Your task to perform on an android device: turn off translation in the chrome app Image 0: 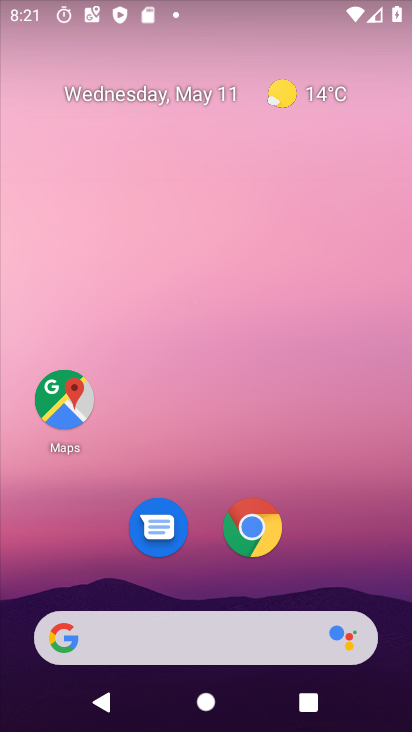
Step 0: click (249, 528)
Your task to perform on an android device: turn off translation in the chrome app Image 1: 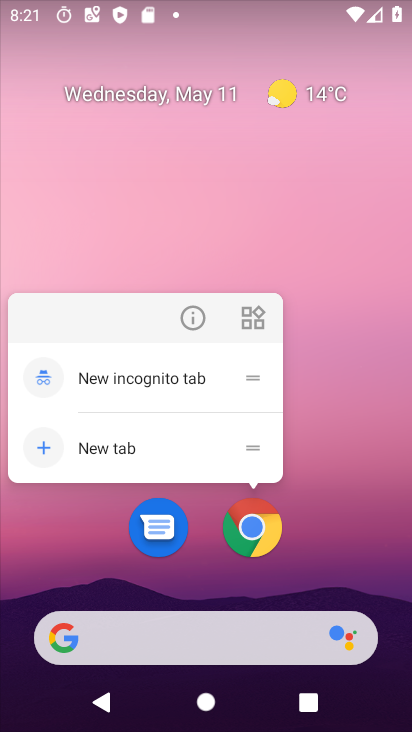
Step 1: click (255, 526)
Your task to perform on an android device: turn off translation in the chrome app Image 2: 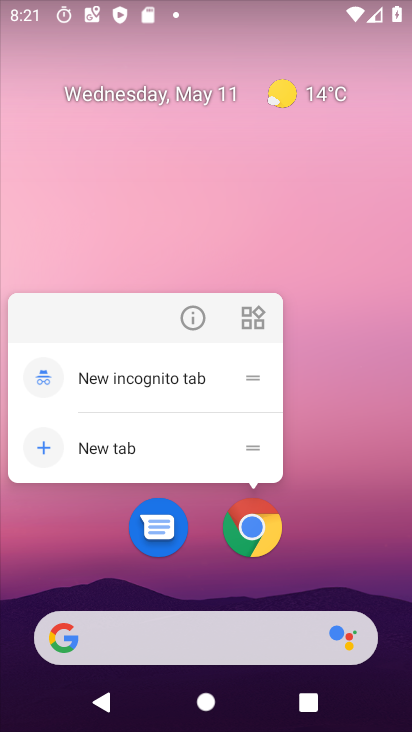
Step 2: click (258, 539)
Your task to perform on an android device: turn off translation in the chrome app Image 3: 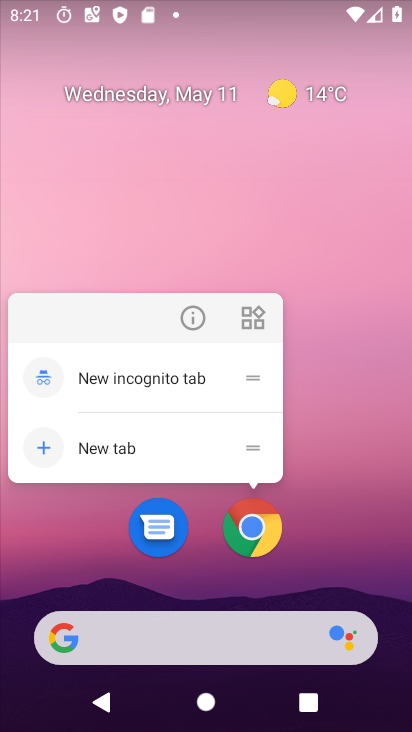
Step 3: click (258, 539)
Your task to perform on an android device: turn off translation in the chrome app Image 4: 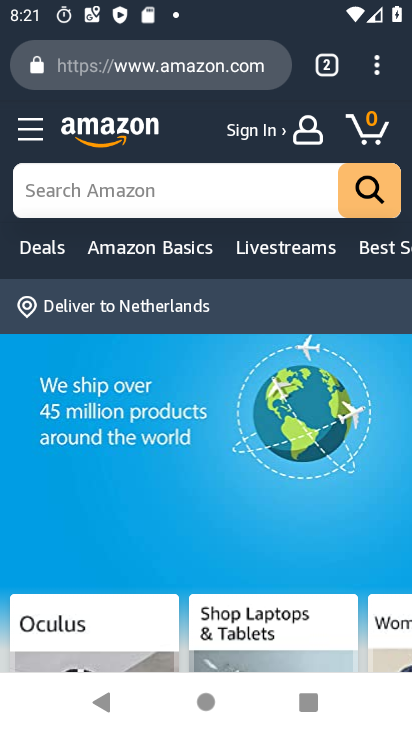
Step 4: click (384, 59)
Your task to perform on an android device: turn off translation in the chrome app Image 5: 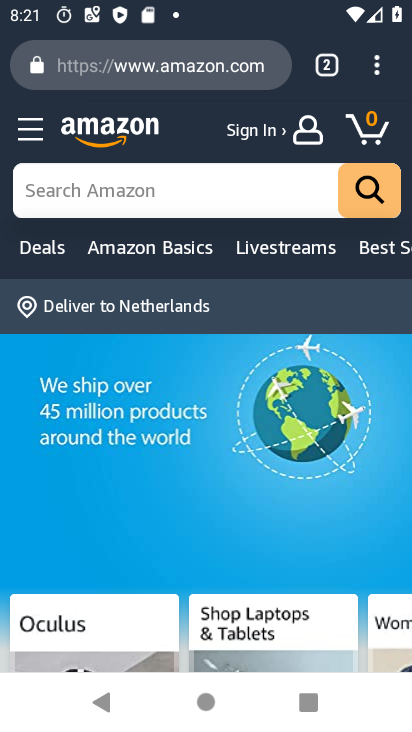
Step 5: click (381, 72)
Your task to perform on an android device: turn off translation in the chrome app Image 6: 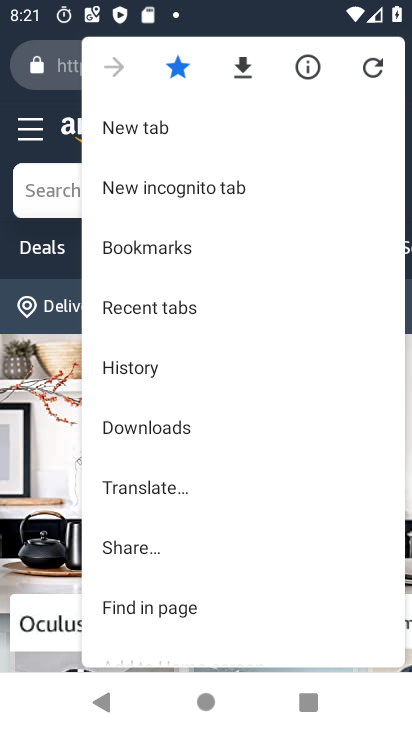
Step 6: click (145, 481)
Your task to perform on an android device: turn off translation in the chrome app Image 7: 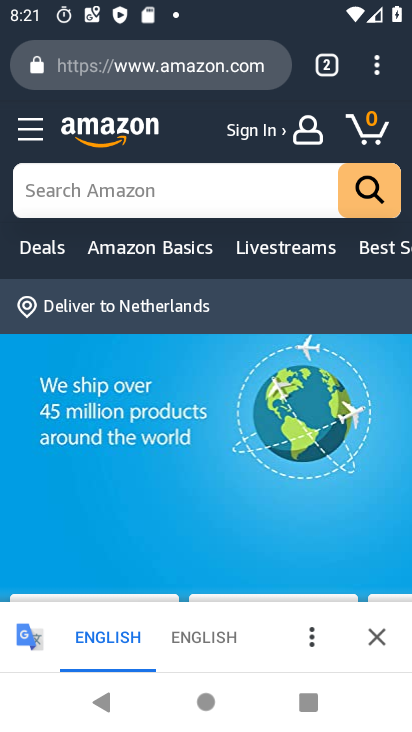
Step 7: click (309, 632)
Your task to perform on an android device: turn off translation in the chrome app Image 8: 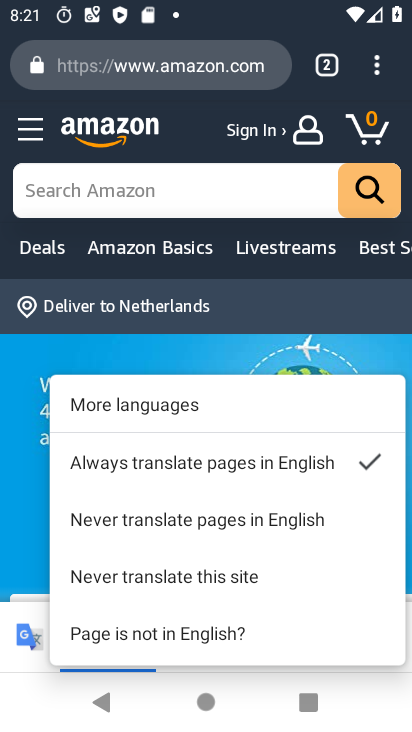
Step 8: click (251, 514)
Your task to perform on an android device: turn off translation in the chrome app Image 9: 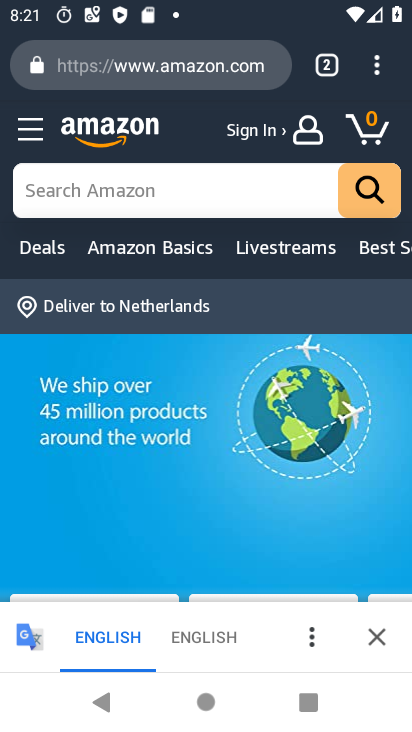
Step 9: task complete